Your task to perform on an android device: What's the weather? Image 0: 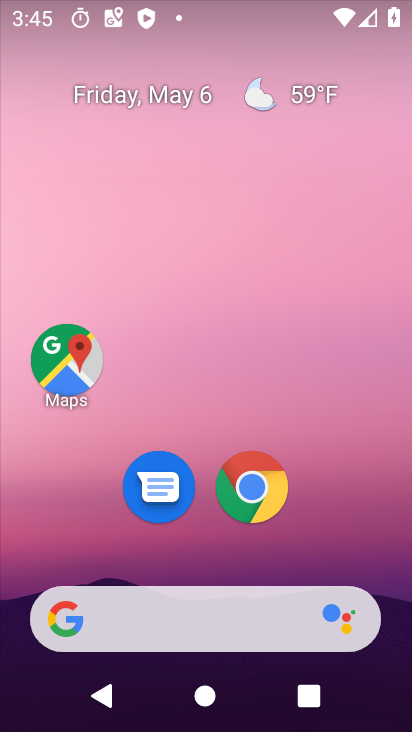
Step 0: click (296, 102)
Your task to perform on an android device: What's the weather? Image 1: 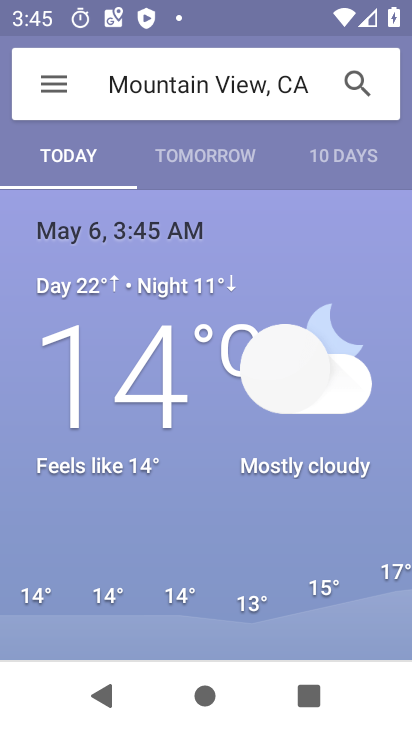
Step 1: task complete